Your task to perform on an android device: Open location settings Image 0: 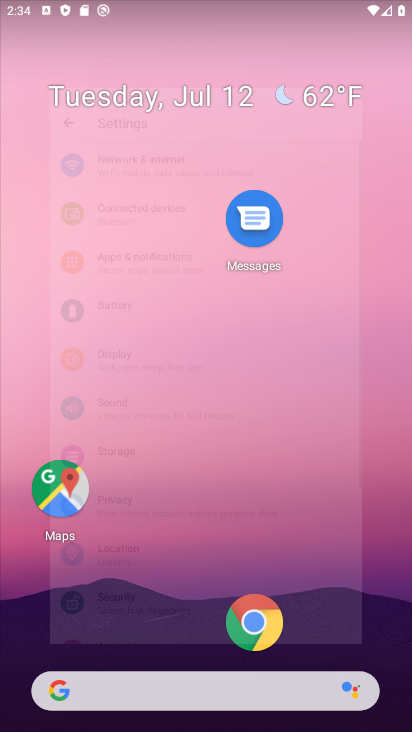
Step 0: drag from (202, 657) to (168, 124)
Your task to perform on an android device: Open location settings Image 1: 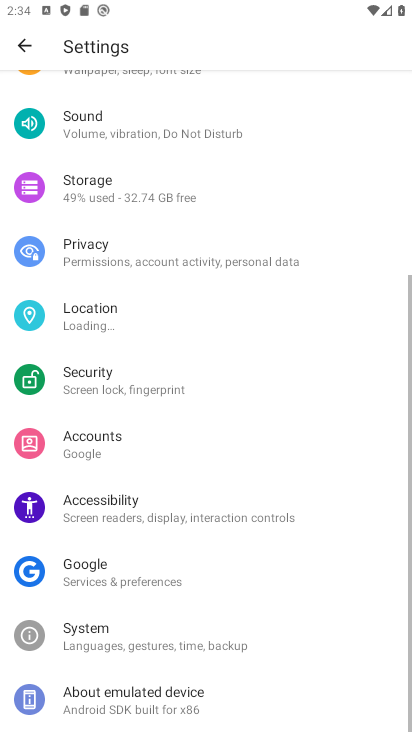
Step 1: press home button
Your task to perform on an android device: Open location settings Image 2: 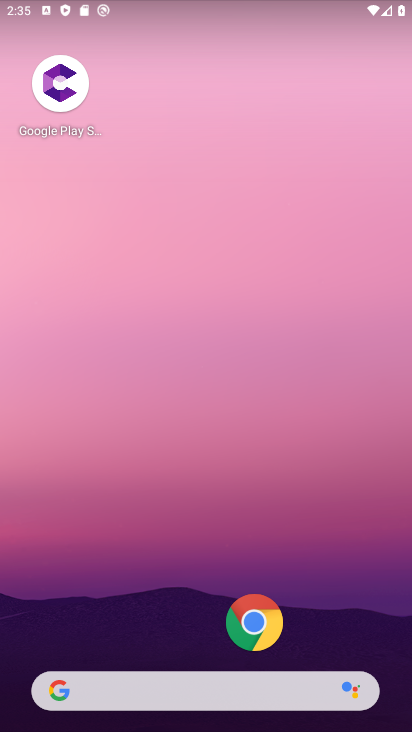
Step 2: drag from (199, 650) to (289, 2)
Your task to perform on an android device: Open location settings Image 3: 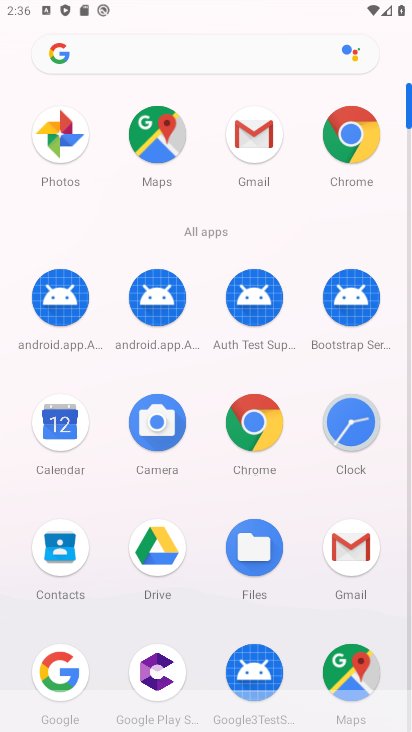
Step 3: drag from (207, 626) to (236, 229)
Your task to perform on an android device: Open location settings Image 4: 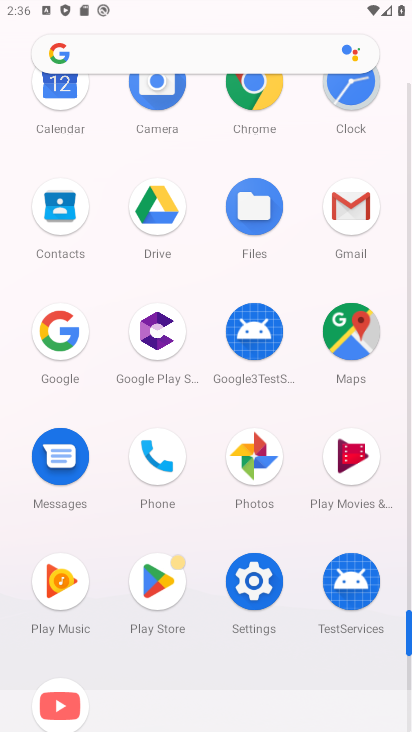
Step 4: click (247, 578)
Your task to perform on an android device: Open location settings Image 5: 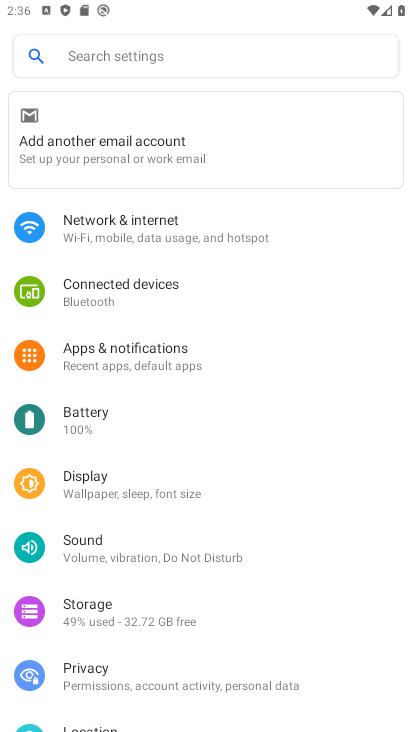
Step 5: drag from (203, 637) to (227, 88)
Your task to perform on an android device: Open location settings Image 6: 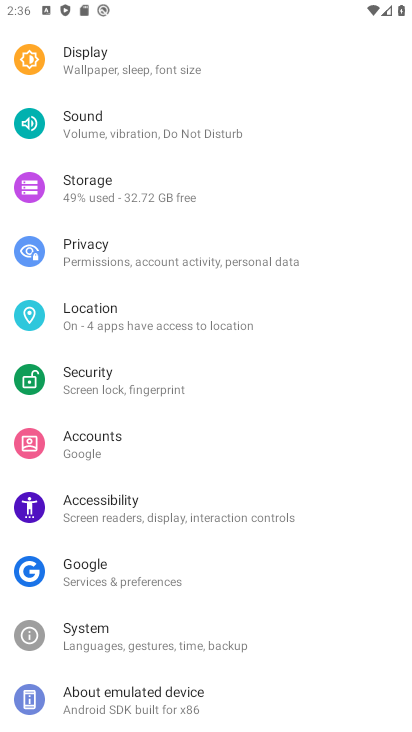
Step 6: click (129, 313)
Your task to perform on an android device: Open location settings Image 7: 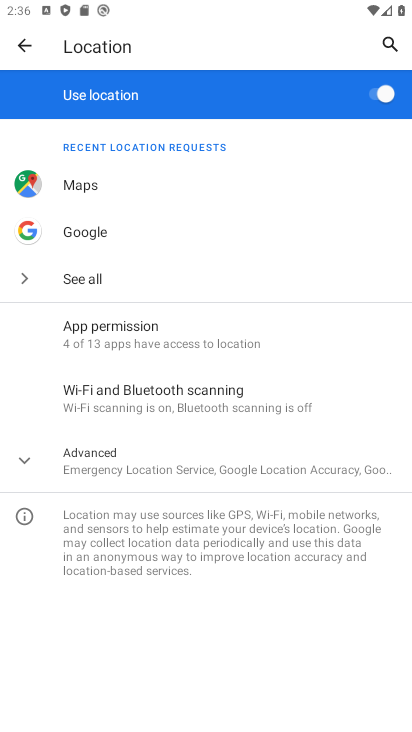
Step 7: click (27, 453)
Your task to perform on an android device: Open location settings Image 8: 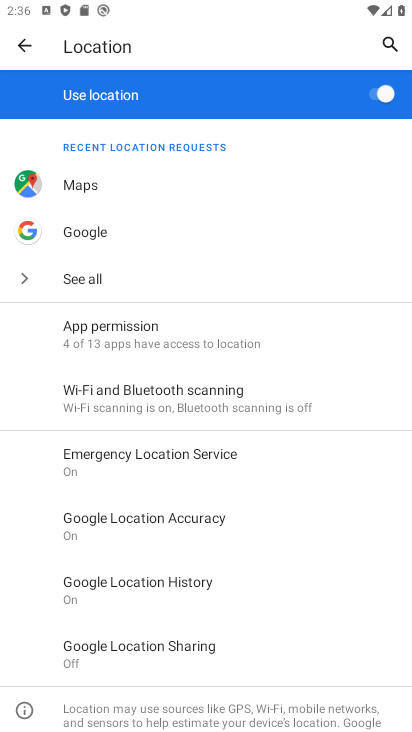
Step 8: task complete